Your task to perform on an android device: turn notification dots on Image 0: 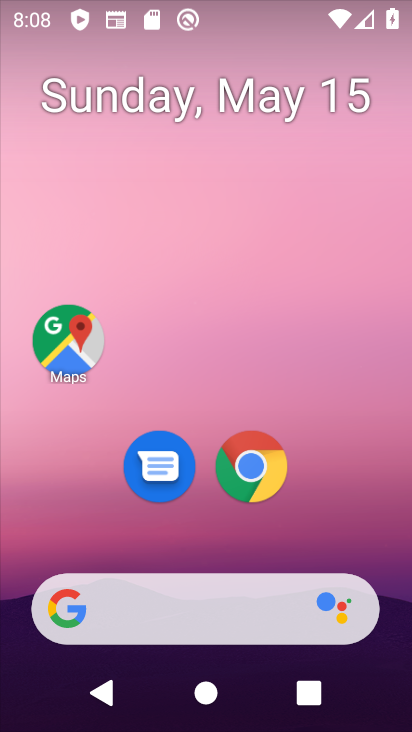
Step 0: drag from (206, 544) to (290, 8)
Your task to perform on an android device: turn notification dots on Image 1: 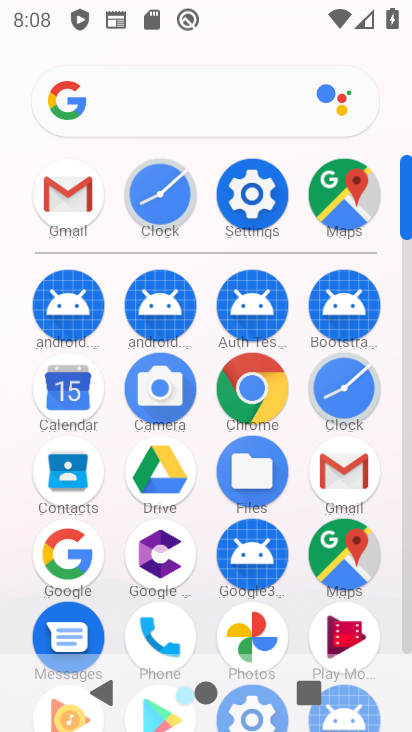
Step 1: click (259, 203)
Your task to perform on an android device: turn notification dots on Image 2: 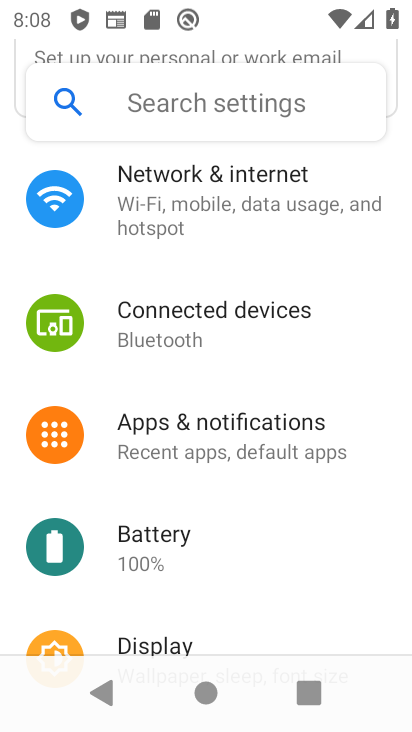
Step 2: click (273, 412)
Your task to perform on an android device: turn notification dots on Image 3: 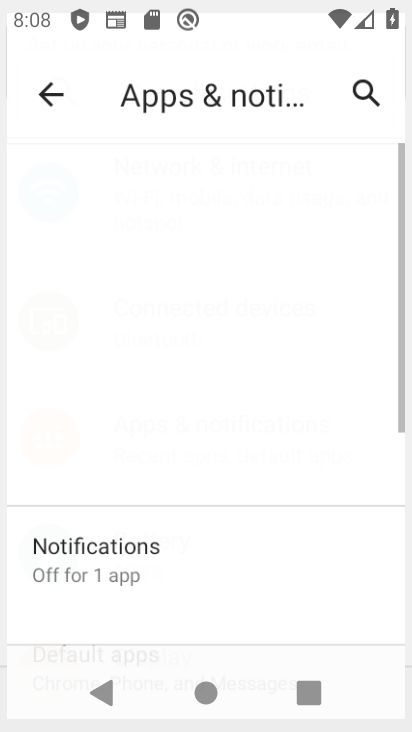
Step 3: drag from (303, 581) to (316, 85)
Your task to perform on an android device: turn notification dots on Image 4: 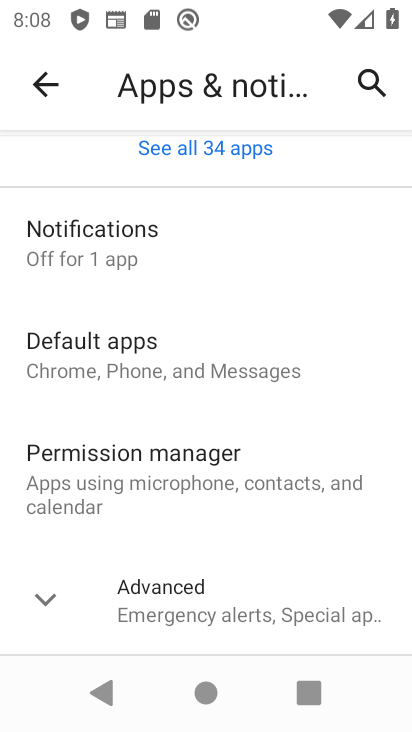
Step 4: click (207, 617)
Your task to perform on an android device: turn notification dots on Image 5: 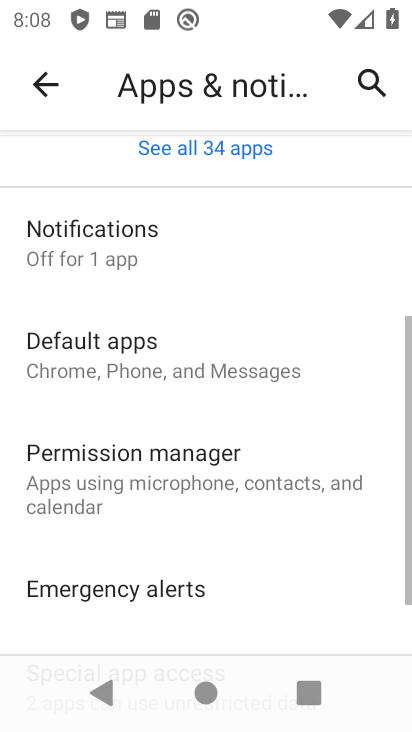
Step 5: drag from (206, 616) to (174, 395)
Your task to perform on an android device: turn notification dots on Image 6: 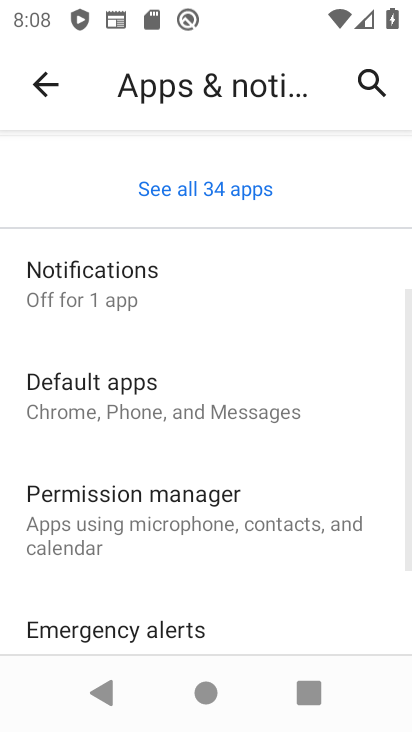
Step 6: click (140, 285)
Your task to perform on an android device: turn notification dots on Image 7: 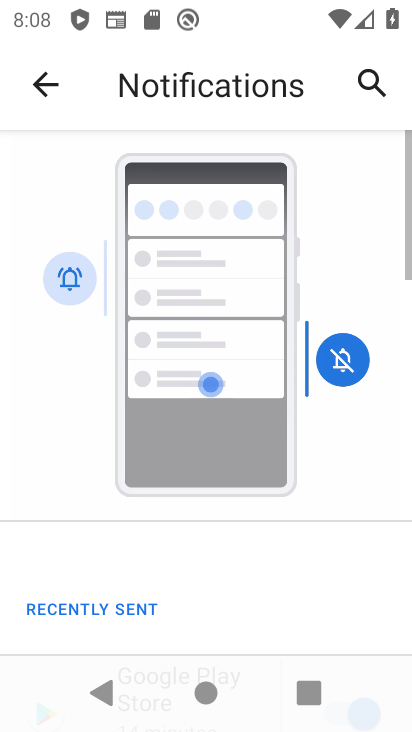
Step 7: drag from (225, 611) to (136, 21)
Your task to perform on an android device: turn notification dots on Image 8: 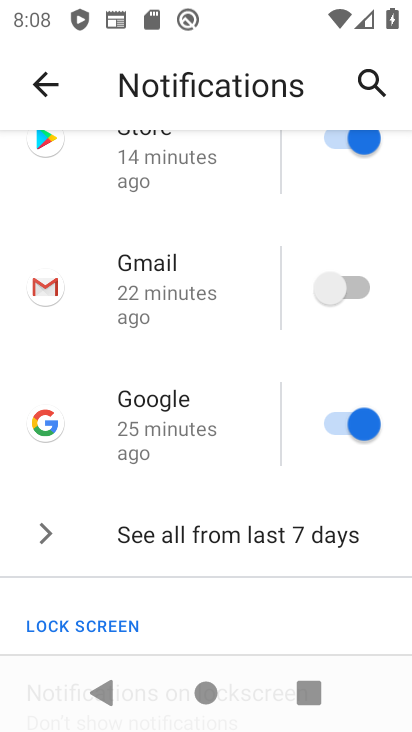
Step 8: drag from (194, 447) to (176, 17)
Your task to perform on an android device: turn notification dots on Image 9: 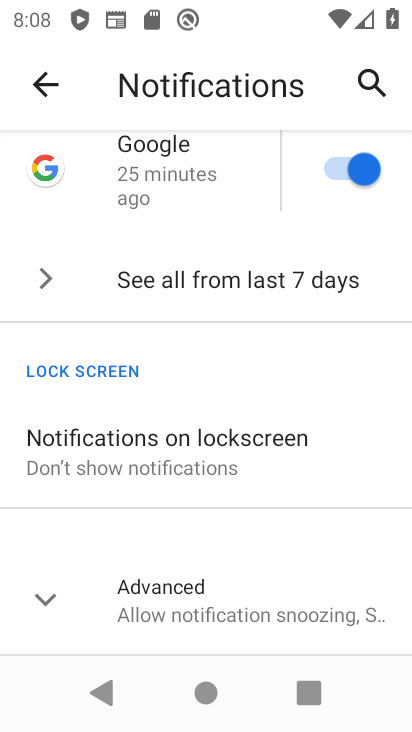
Step 9: click (264, 626)
Your task to perform on an android device: turn notification dots on Image 10: 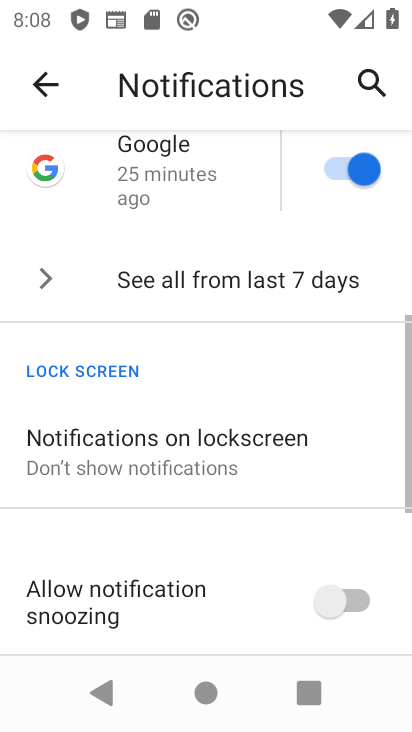
Step 10: task complete